Your task to perform on an android device: install app "Grab" Image 0: 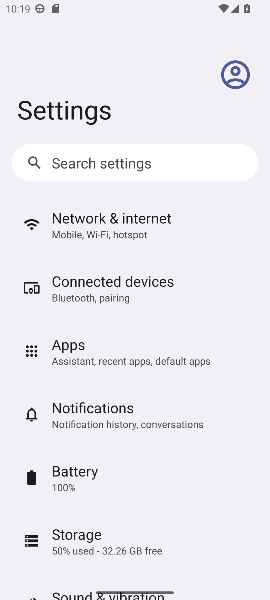
Step 0: press home button
Your task to perform on an android device: install app "Grab" Image 1: 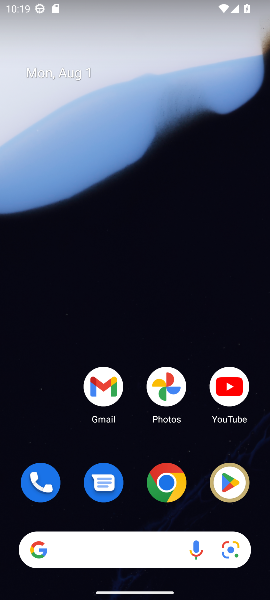
Step 1: drag from (198, 475) to (187, 57)
Your task to perform on an android device: install app "Grab" Image 2: 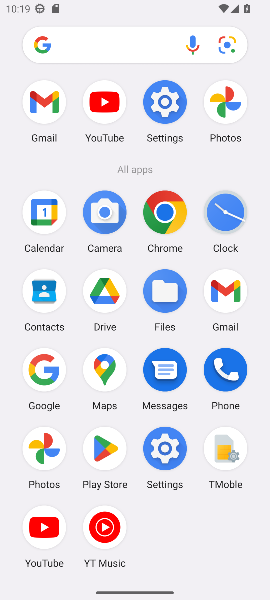
Step 2: click (105, 437)
Your task to perform on an android device: install app "Grab" Image 3: 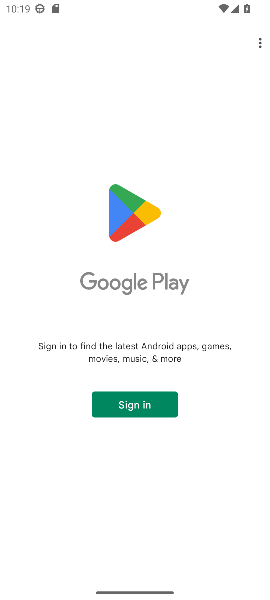
Step 3: task complete